Your task to perform on an android device: Check the weather Image 0: 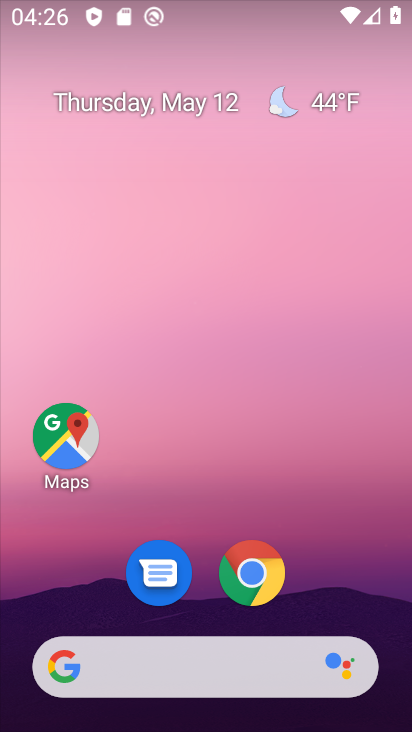
Step 0: click (385, 618)
Your task to perform on an android device: Check the weather Image 1: 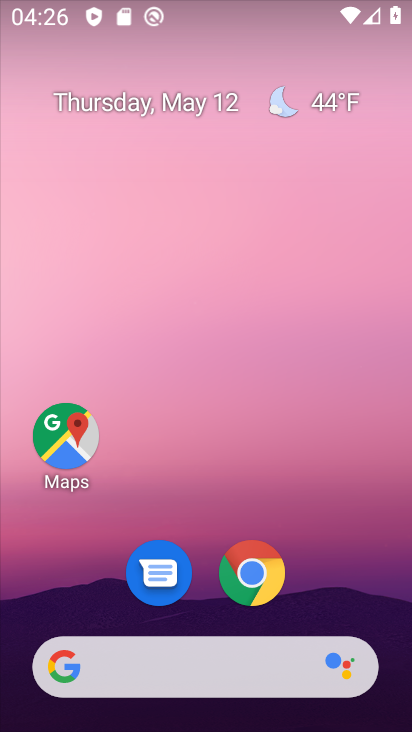
Step 1: click (322, 94)
Your task to perform on an android device: Check the weather Image 2: 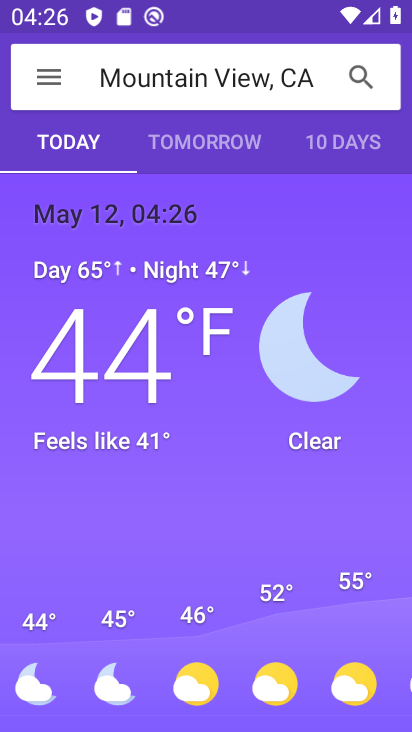
Step 2: task complete